Your task to perform on an android device: Open Reddit.com Image 0: 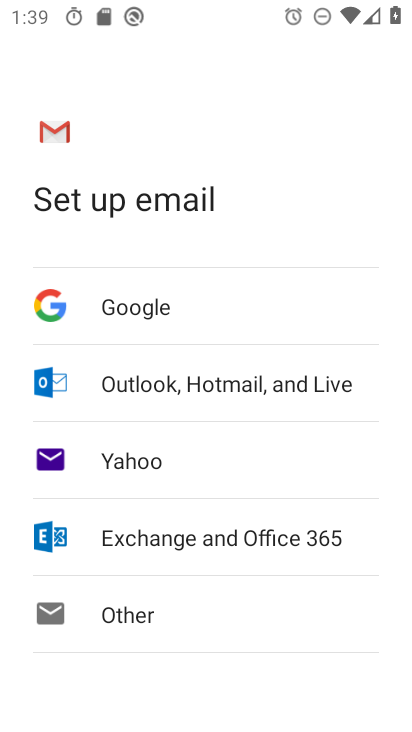
Step 0: press home button
Your task to perform on an android device: Open Reddit.com Image 1: 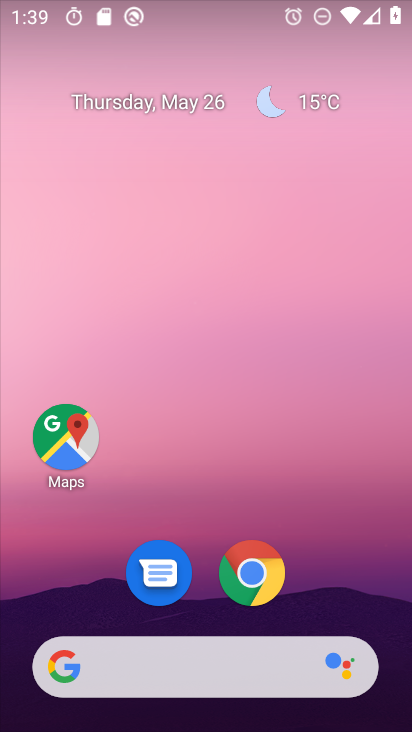
Step 1: click (247, 586)
Your task to perform on an android device: Open Reddit.com Image 2: 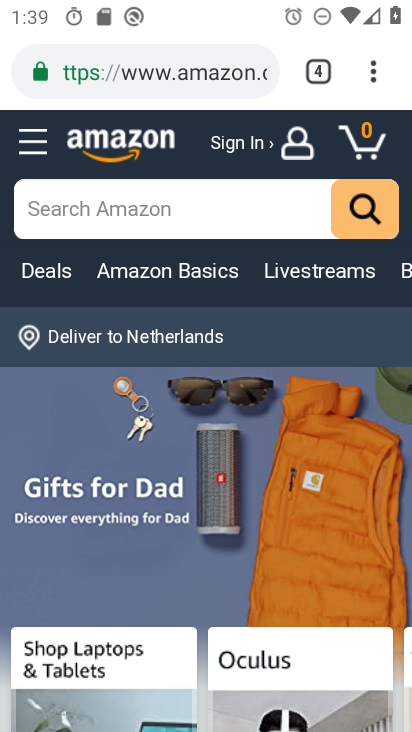
Step 2: click (118, 79)
Your task to perform on an android device: Open Reddit.com Image 3: 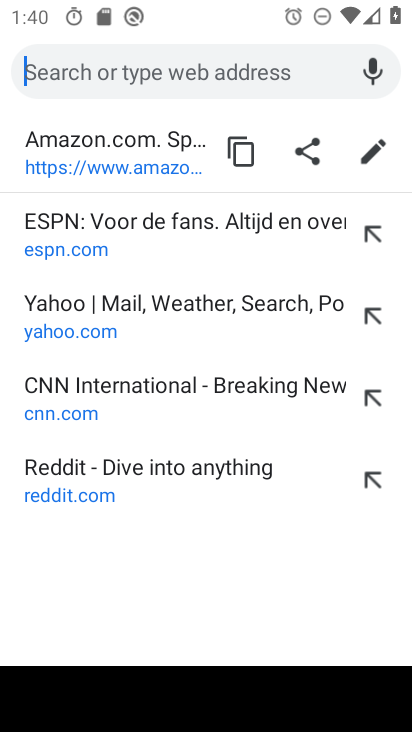
Step 3: click (50, 465)
Your task to perform on an android device: Open Reddit.com Image 4: 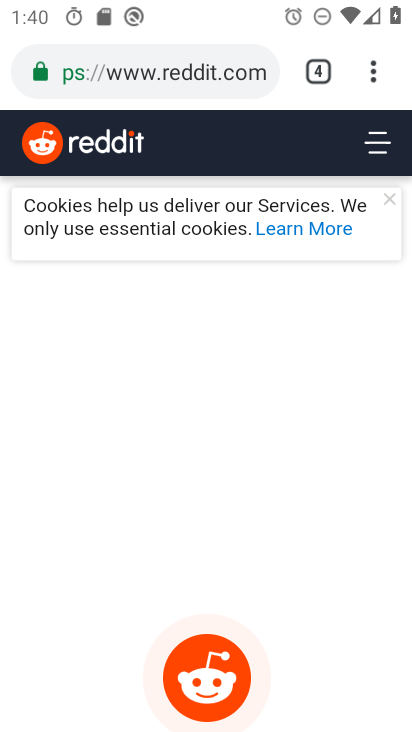
Step 4: task complete